Your task to perform on an android device: open device folders in google photos Image 0: 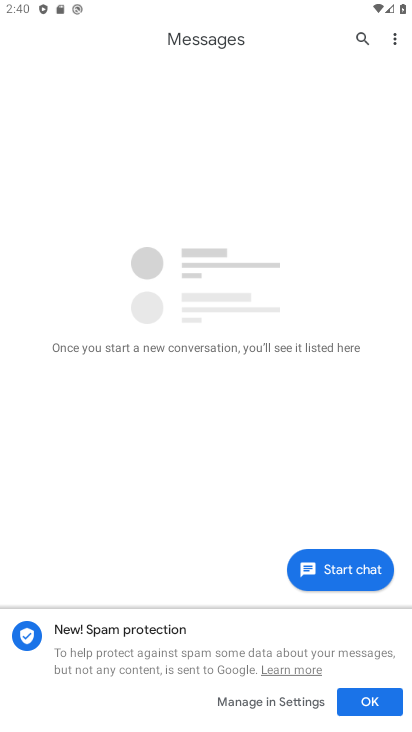
Step 0: press home button
Your task to perform on an android device: open device folders in google photos Image 1: 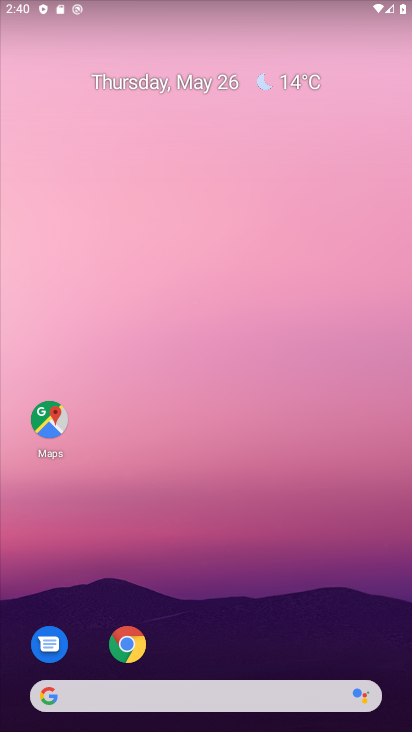
Step 1: drag from (385, 556) to (341, 143)
Your task to perform on an android device: open device folders in google photos Image 2: 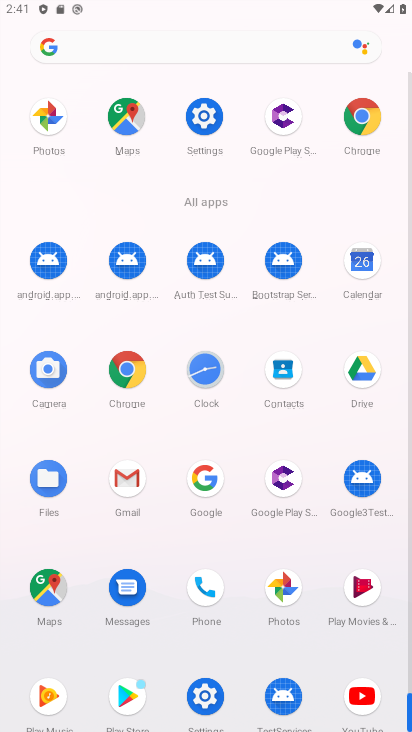
Step 2: click (288, 602)
Your task to perform on an android device: open device folders in google photos Image 3: 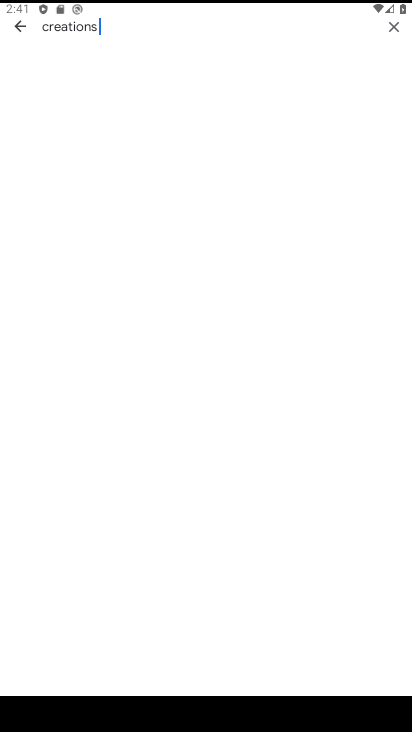
Step 3: click (29, 29)
Your task to perform on an android device: open device folders in google photos Image 4: 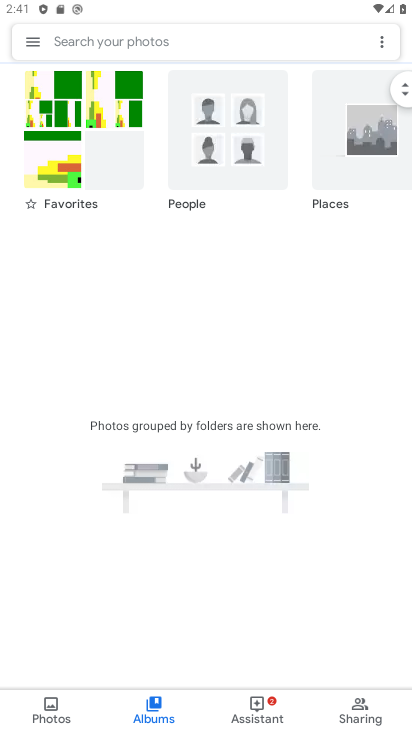
Step 4: click (29, 38)
Your task to perform on an android device: open device folders in google photos Image 5: 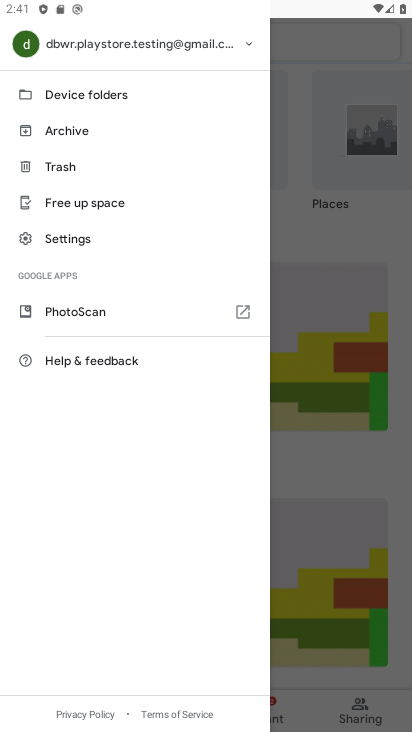
Step 5: click (79, 104)
Your task to perform on an android device: open device folders in google photos Image 6: 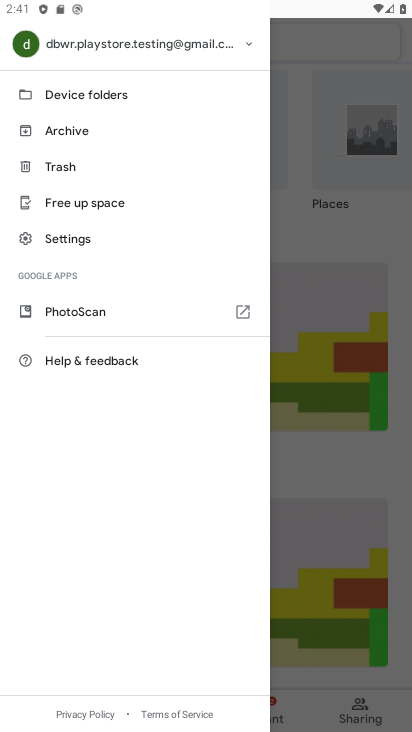
Step 6: click (94, 89)
Your task to perform on an android device: open device folders in google photos Image 7: 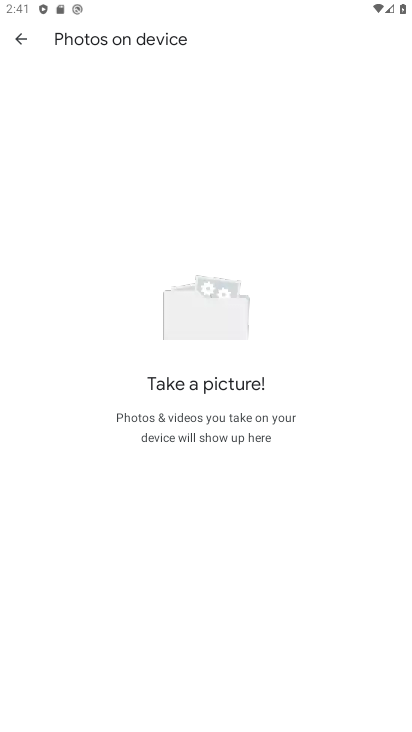
Step 7: task complete